Your task to perform on an android device: open app "Walmart Shopping & Grocery" (install if not already installed) Image 0: 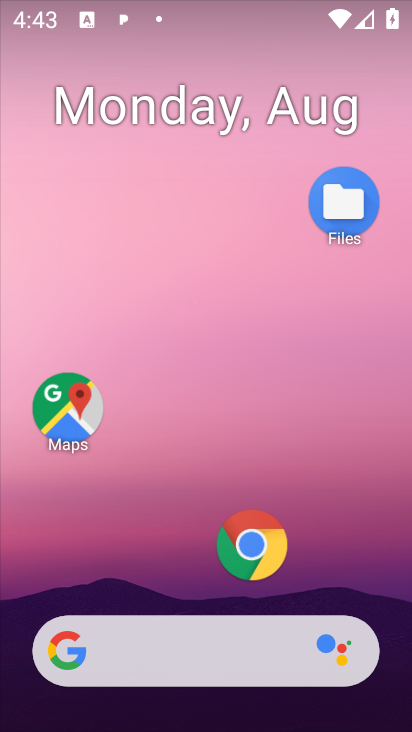
Step 0: drag from (162, 509) to (239, 35)
Your task to perform on an android device: open app "Walmart Shopping & Grocery" (install if not already installed) Image 1: 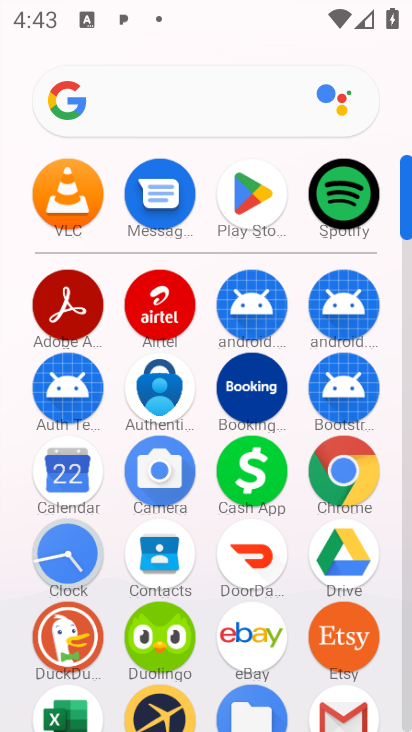
Step 1: click (268, 180)
Your task to perform on an android device: open app "Walmart Shopping & Grocery" (install if not already installed) Image 2: 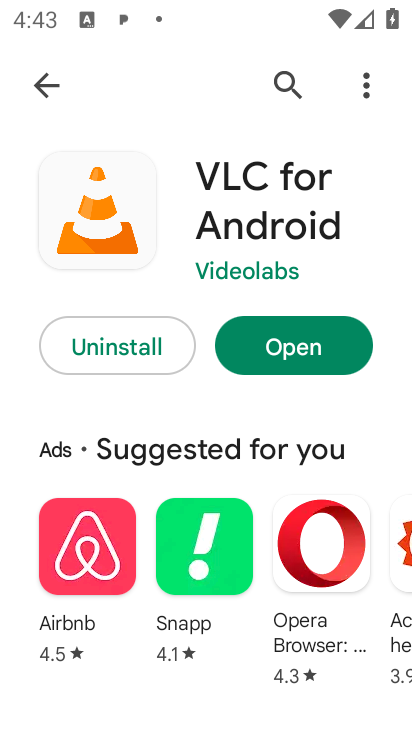
Step 2: click (275, 84)
Your task to perform on an android device: open app "Walmart Shopping & Grocery" (install if not already installed) Image 3: 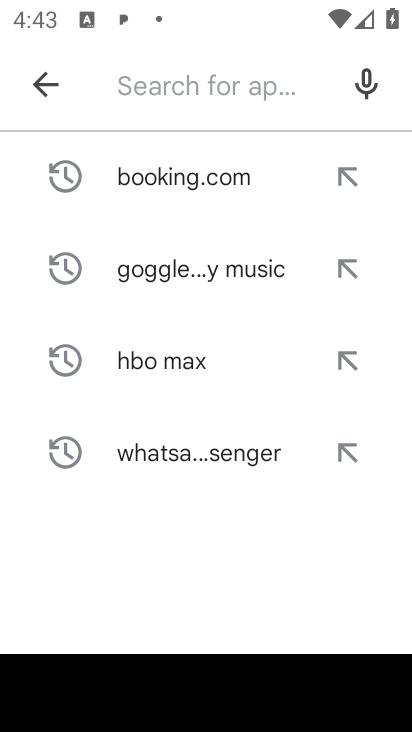
Step 3: click (135, 85)
Your task to perform on an android device: open app "Walmart Shopping & Grocery" (install if not already installed) Image 4: 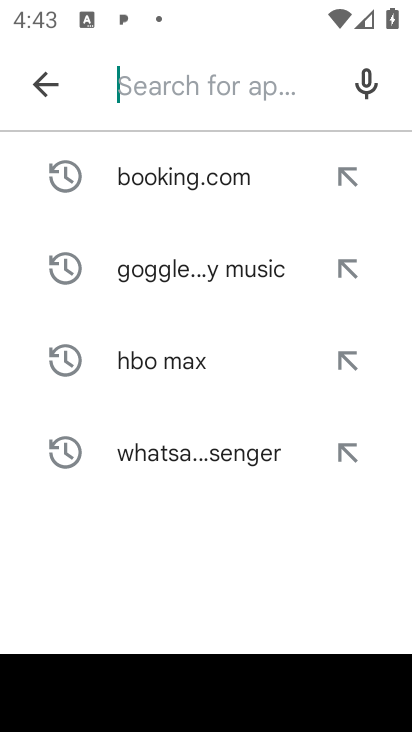
Step 4: type "Walmart Shopping & Grocery"
Your task to perform on an android device: open app "Walmart Shopping & Grocery" (install if not already installed) Image 5: 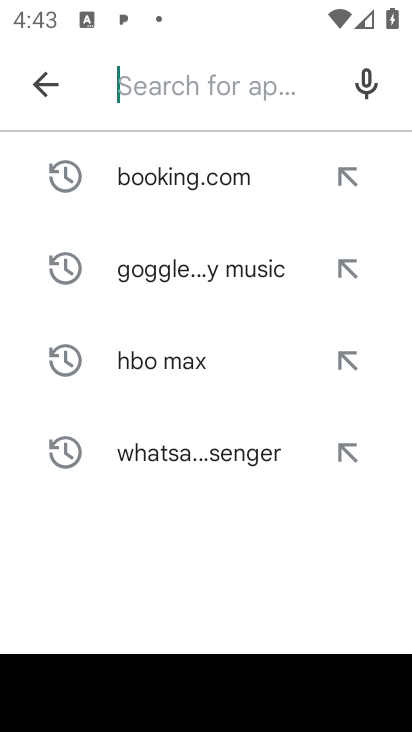
Step 5: click (177, 544)
Your task to perform on an android device: open app "Walmart Shopping & Grocery" (install if not already installed) Image 6: 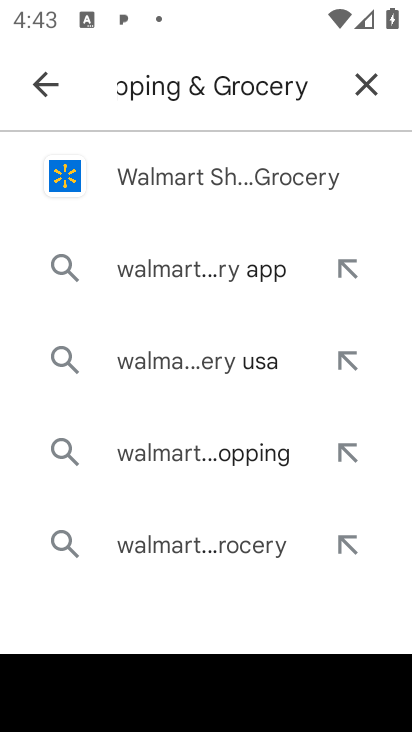
Step 6: click (259, 161)
Your task to perform on an android device: open app "Walmart Shopping & Grocery" (install if not already installed) Image 7: 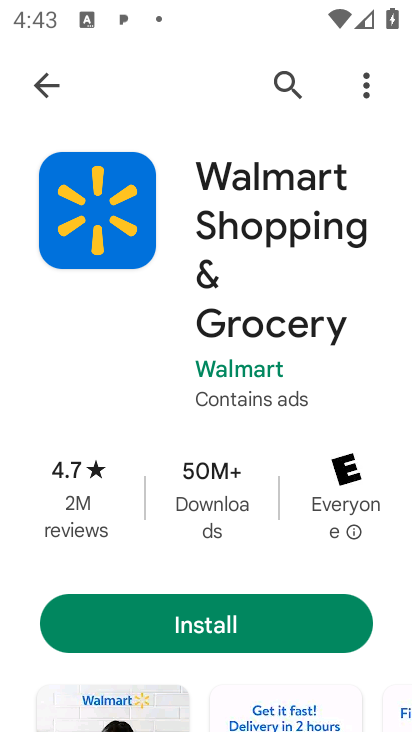
Step 7: click (255, 611)
Your task to perform on an android device: open app "Walmart Shopping & Grocery" (install if not already installed) Image 8: 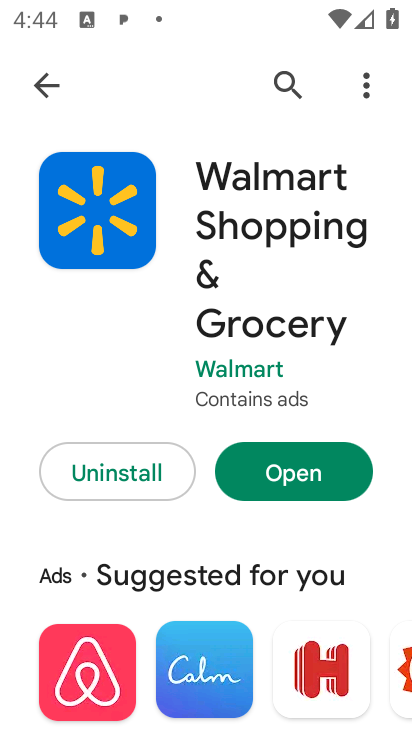
Step 8: click (295, 464)
Your task to perform on an android device: open app "Walmart Shopping & Grocery" (install if not already installed) Image 9: 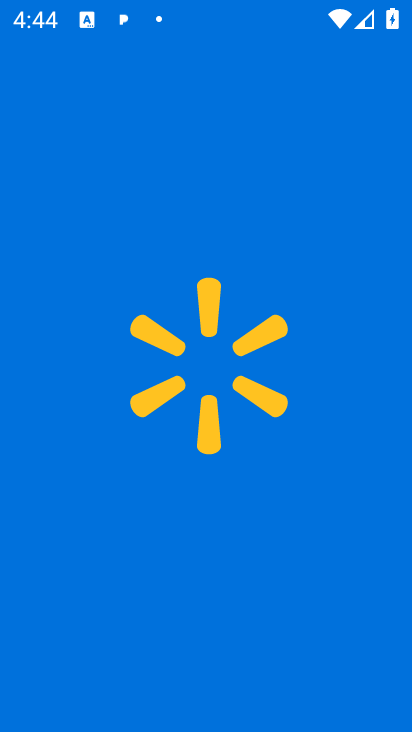
Step 9: task complete